Your task to perform on an android device: Go to privacy settings Image 0: 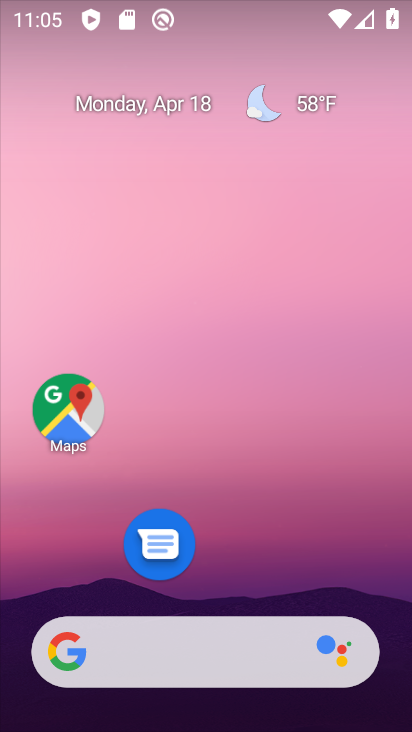
Step 0: drag from (240, 588) to (247, 55)
Your task to perform on an android device: Go to privacy settings Image 1: 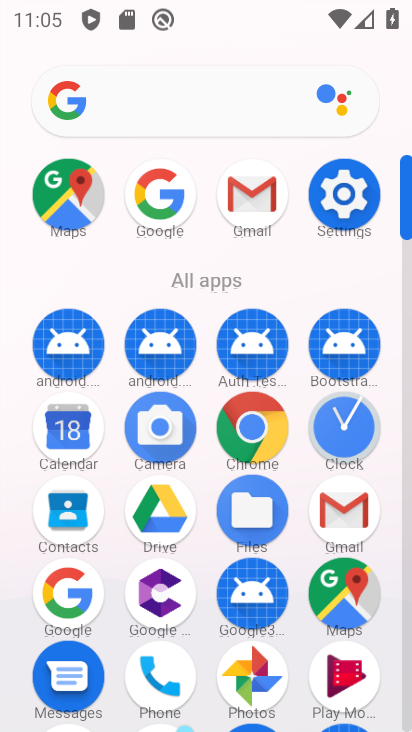
Step 1: click (341, 197)
Your task to perform on an android device: Go to privacy settings Image 2: 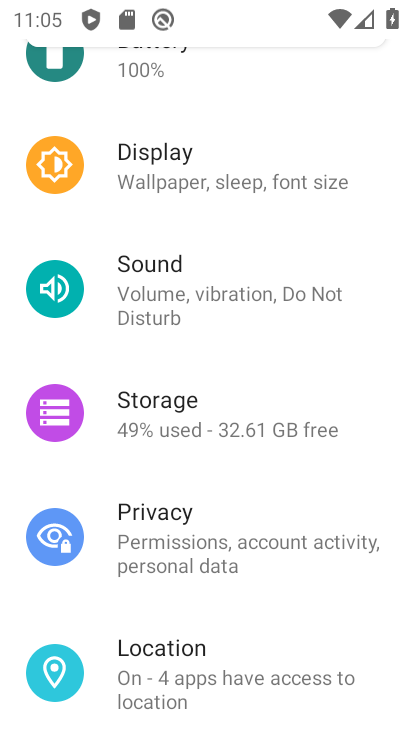
Step 2: click (166, 509)
Your task to perform on an android device: Go to privacy settings Image 3: 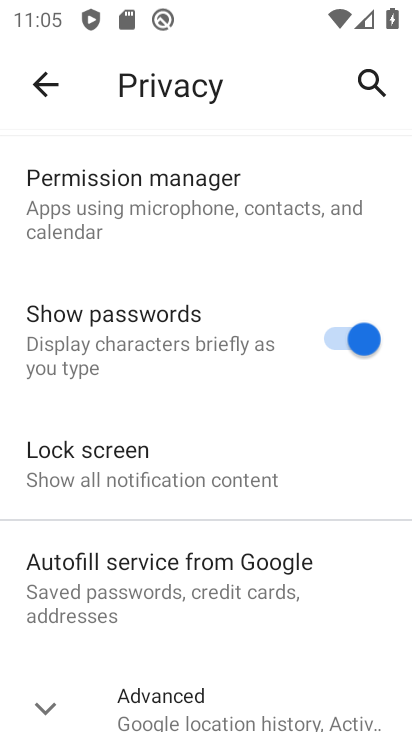
Step 3: task complete